Your task to perform on an android device: Search for Mexican restaurants on Maps Image 0: 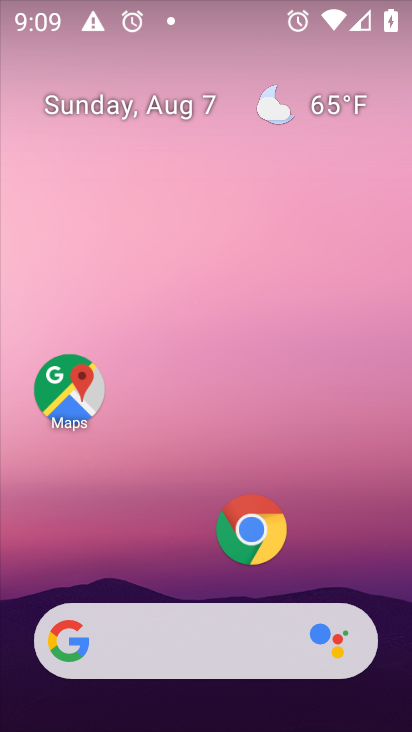
Step 0: click (79, 381)
Your task to perform on an android device: Search for Mexican restaurants on Maps Image 1: 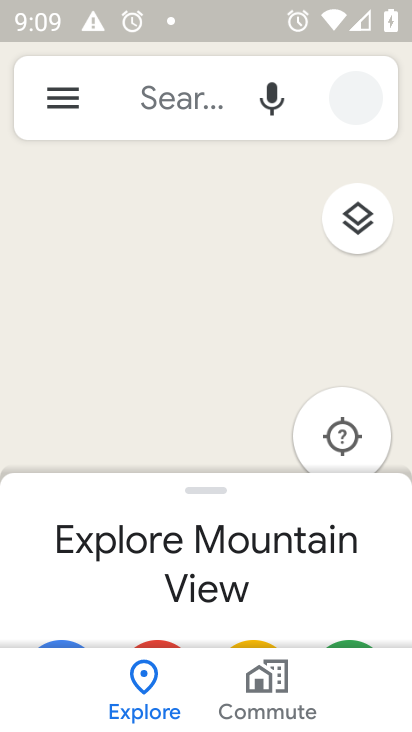
Step 1: click (152, 106)
Your task to perform on an android device: Search for Mexican restaurants on Maps Image 2: 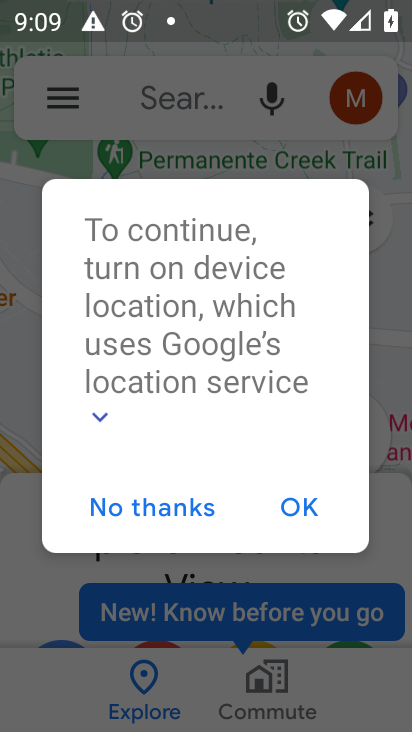
Step 2: click (293, 501)
Your task to perform on an android device: Search for Mexican restaurants on Maps Image 3: 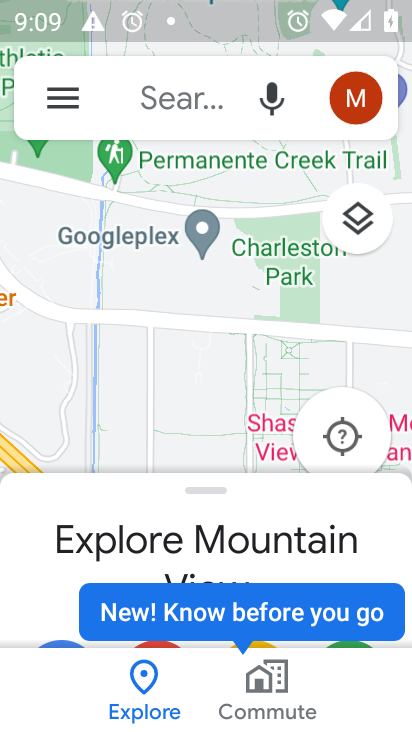
Step 3: click (145, 102)
Your task to perform on an android device: Search for Mexican restaurants on Maps Image 4: 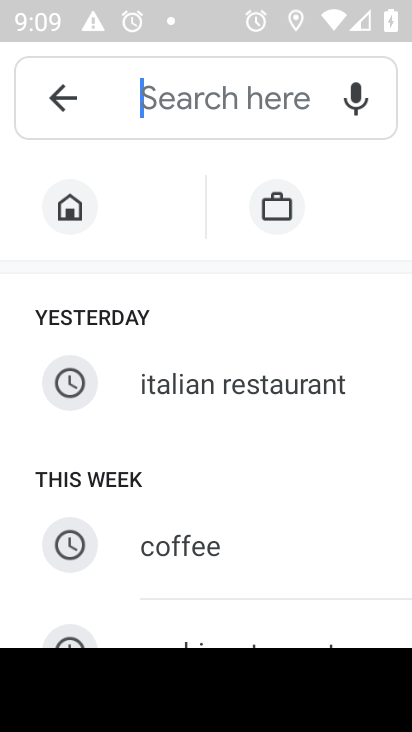
Step 4: type "mexican restaurants"
Your task to perform on an android device: Search for Mexican restaurants on Maps Image 5: 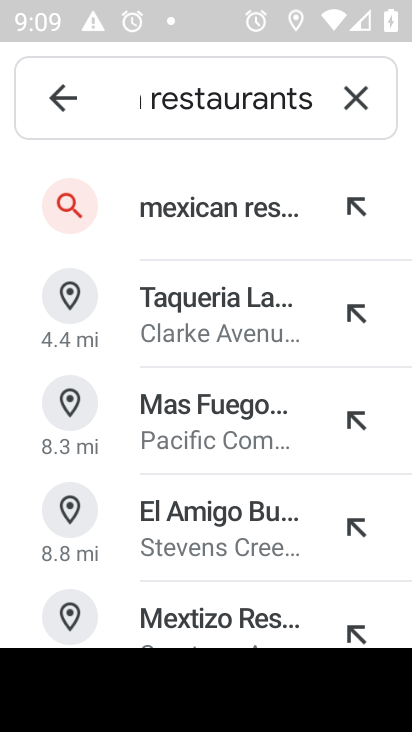
Step 5: click (167, 234)
Your task to perform on an android device: Search for Mexican restaurants on Maps Image 6: 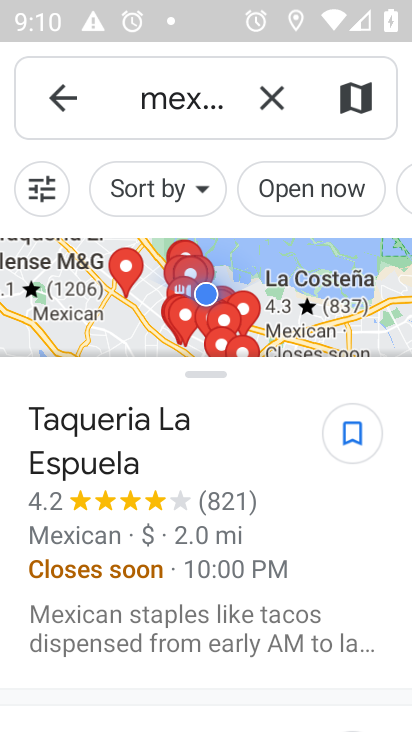
Step 6: task complete